Your task to perform on an android device: Go to Android settings Image 0: 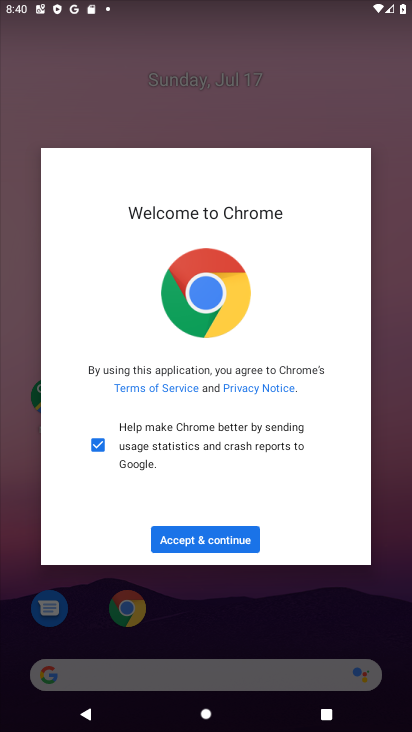
Step 0: press home button
Your task to perform on an android device: Go to Android settings Image 1: 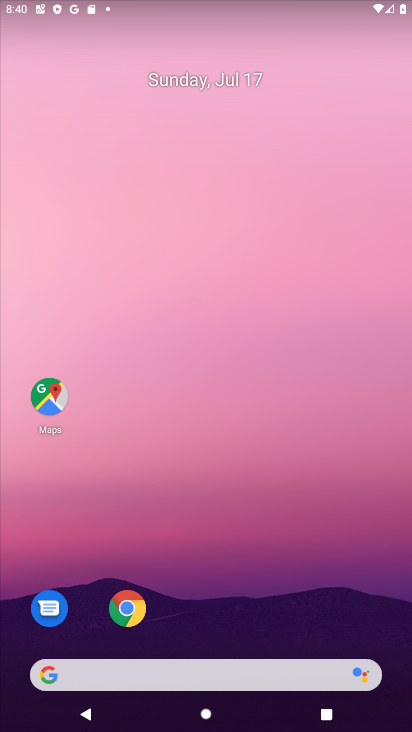
Step 1: drag from (191, 658) to (240, 283)
Your task to perform on an android device: Go to Android settings Image 2: 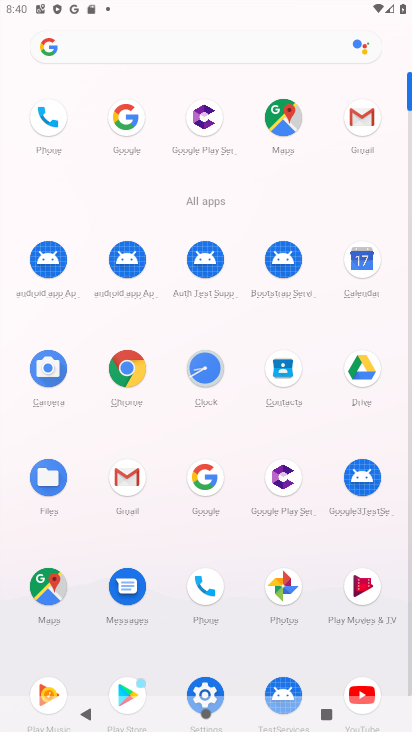
Step 2: click (211, 683)
Your task to perform on an android device: Go to Android settings Image 3: 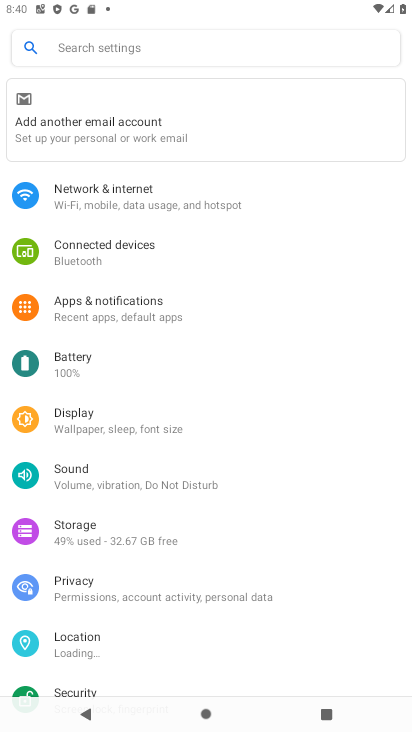
Step 3: task complete